Your task to perform on an android device: Go to notification settings Image 0: 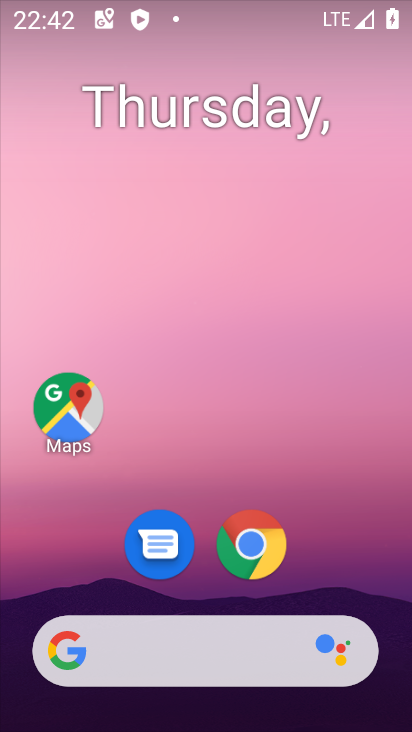
Step 0: drag from (252, 451) to (237, 116)
Your task to perform on an android device: Go to notification settings Image 1: 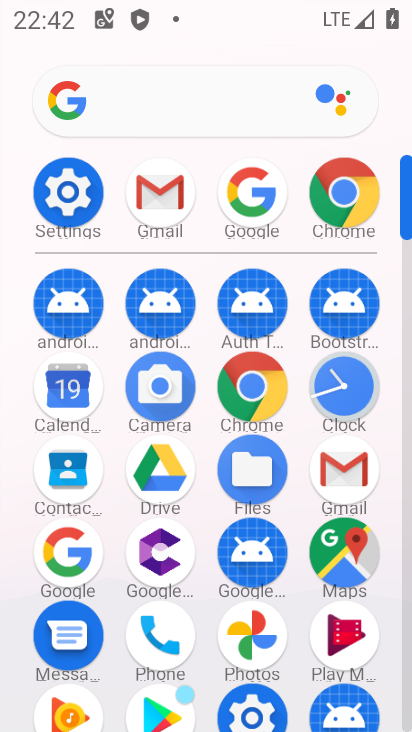
Step 1: click (87, 192)
Your task to perform on an android device: Go to notification settings Image 2: 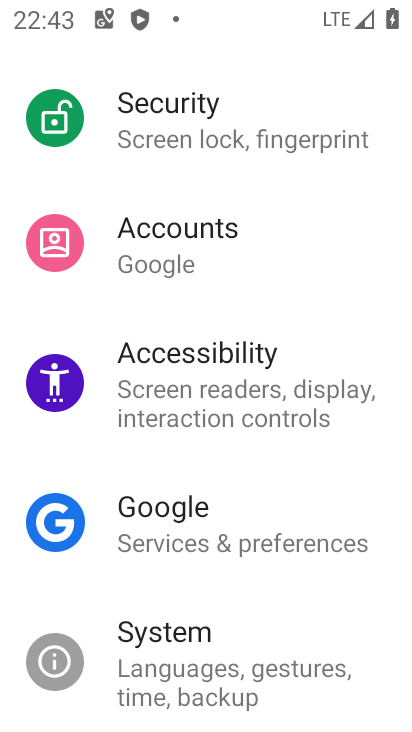
Step 2: drag from (216, 189) to (194, 535)
Your task to perform on an android device: Go to notification settings Image 3: 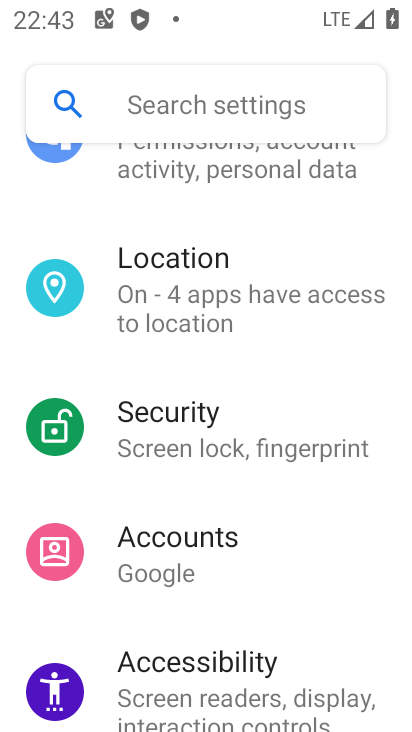
Step 3: drag from (262, 245) to (281, 696)
Your task to perform on an android device: Go to notification settings Image 4: 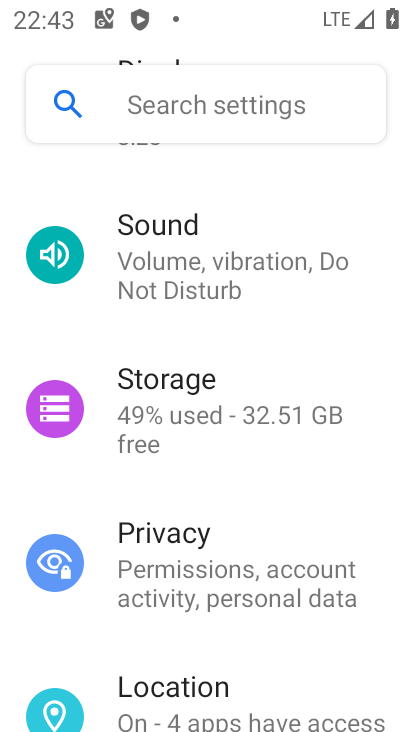
Step 4: drag from (301, 340) to (240, 668)
Your task to perform on an android device: Go to notification settings Image 5: 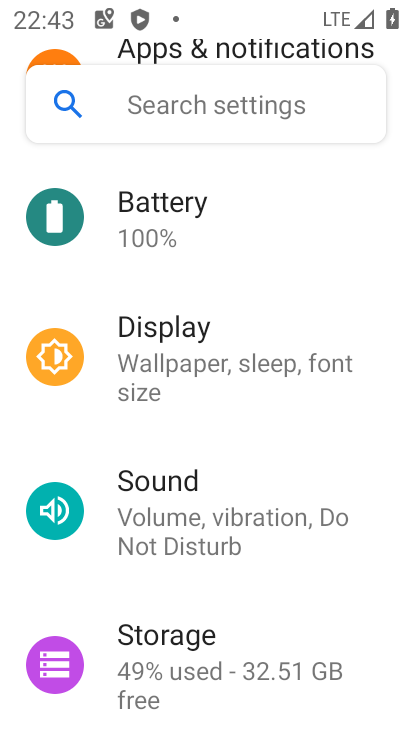
Step 5: drag from (247, 196) to (219, 615)
Your task to perform on an android device: Go to notification settings Image 6: 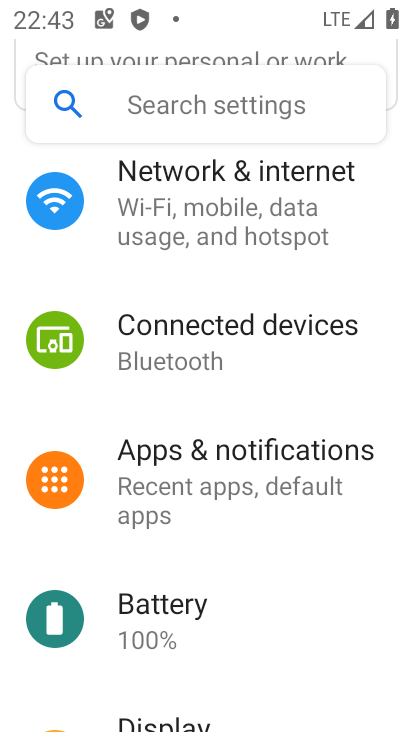
Step 6: click (192, 462)
Your task to perform on an android device: Go to notification settings Image 7: 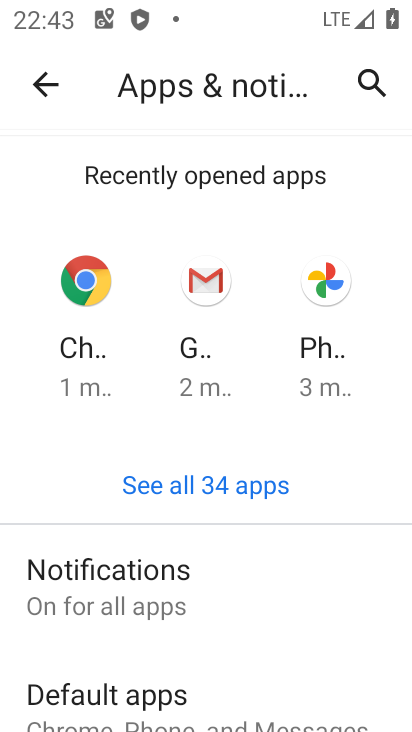
Step 7: click (158, 581)
Your task to perform on an android device: Go to notification settings Image 8: 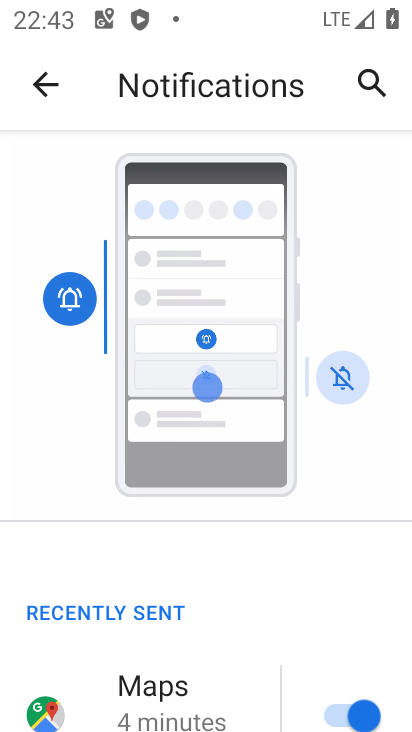
Step 8: drag from (158, 581) to (203, 256)
Your task to perform on an android device: Go to notification settings Image 9: 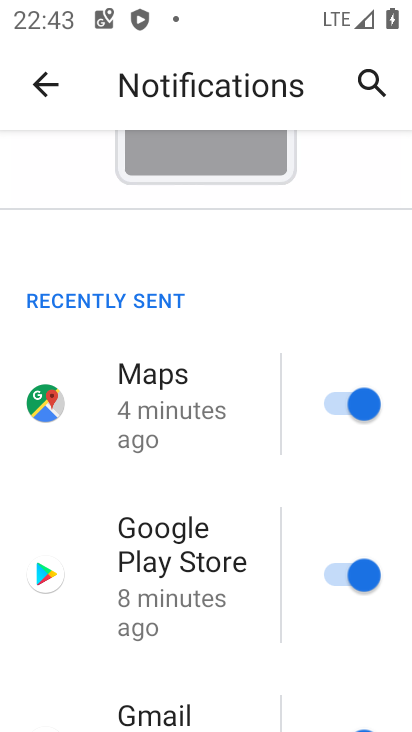
Step 9: drag from (145, 655) to (141, 233)
Your task to perform on an android device: Go to notification settings Image 10: 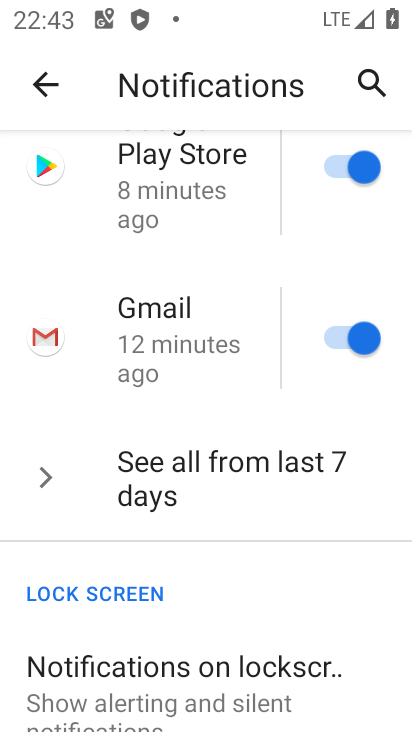
Step 10: drag from (176, 653) to (170, 243)
Your task to perform on an android device: Go to notification settings Image 11: 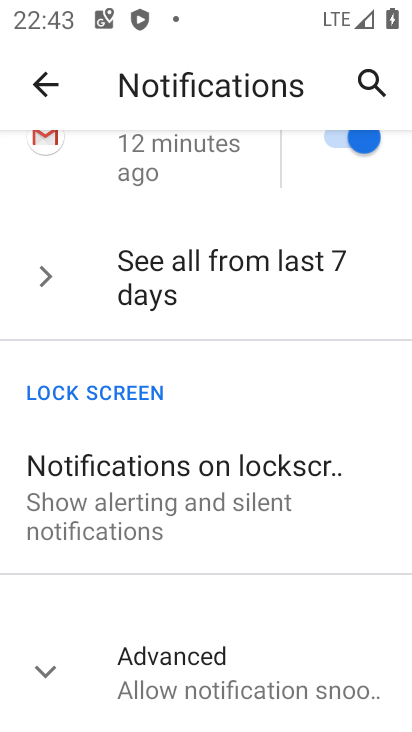
Step 11: click (157, 673)
Your task to perform on an android device: Go to notification settings Image 12: 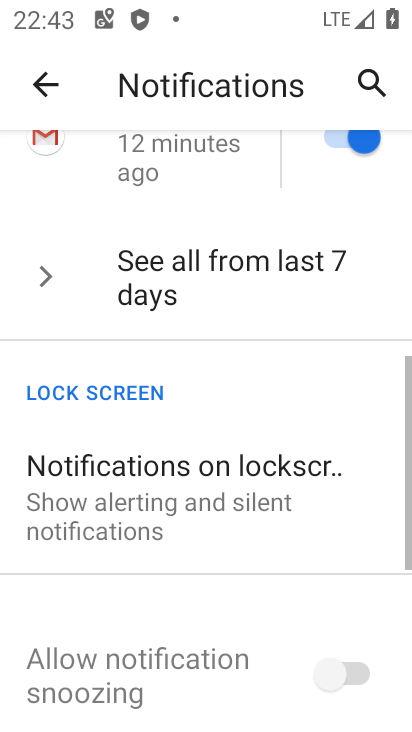
Step 12: task complete